Your task to perform on an android device: See recent photos Image 0: 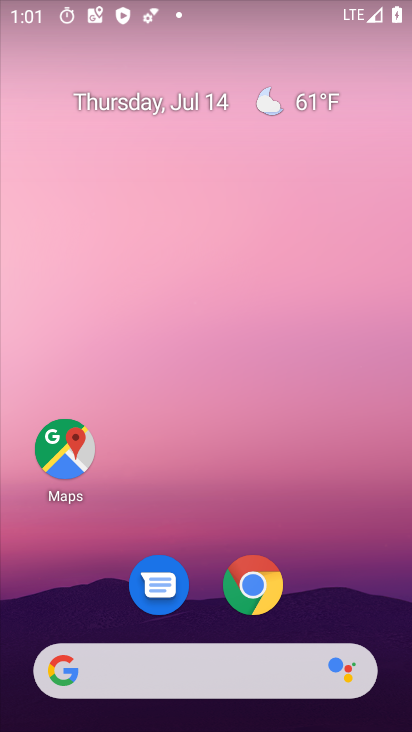
Step 0: drag from (242, 500) to (248, 0)
Your task to perform on an android device: See recent photos Image 1: 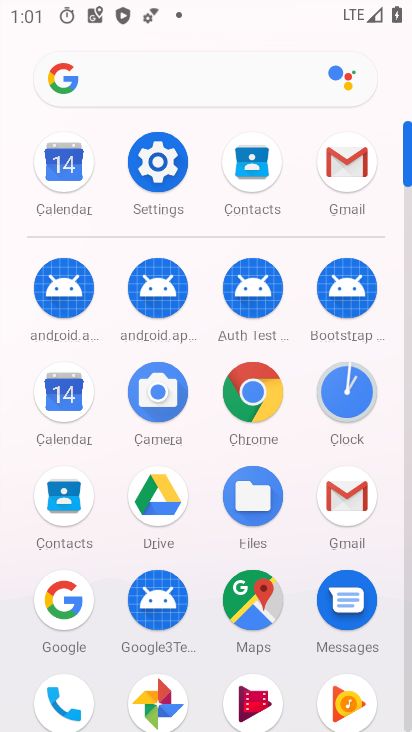
Step 1: drag from (202, 524) to (211, 257)
Your task to perform on an android device: See recent photos Image 2: 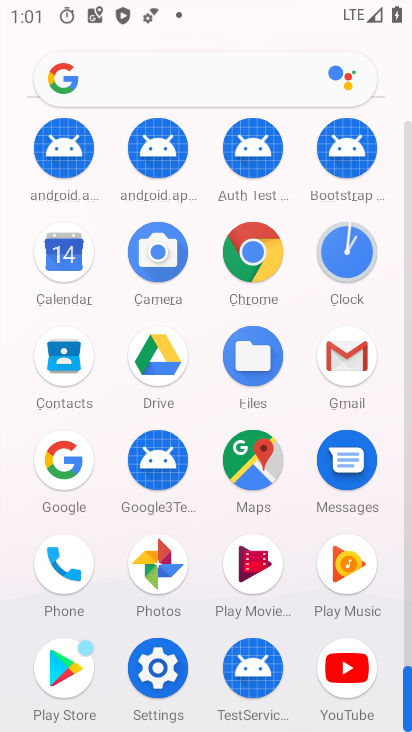
Step 2: click (174, 564)
Your task to perform on an android device: See recent photos Image 3: 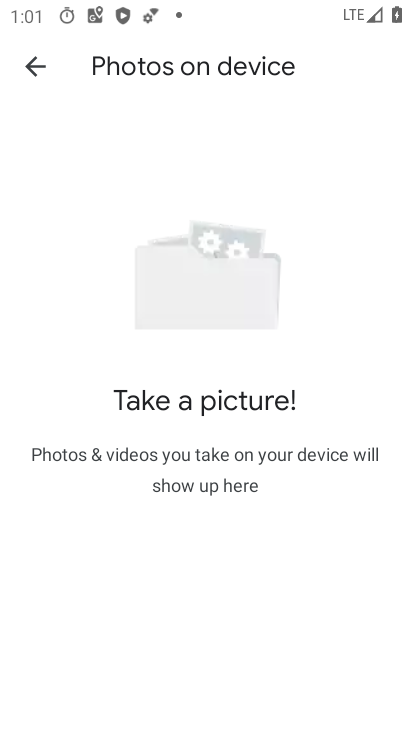
Step 3: click (39, 63)
Your task to perform on an android device: See recent photos Image 4: 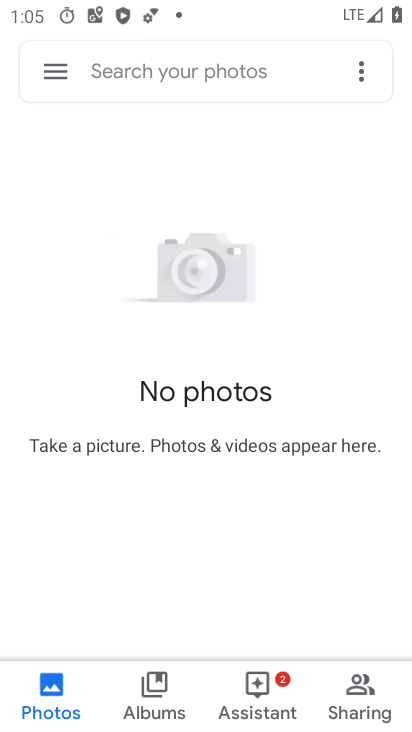
Step 4: task complete